Your task to perform on an android device: Open the phone app and click the voicemail tab. Image 0: 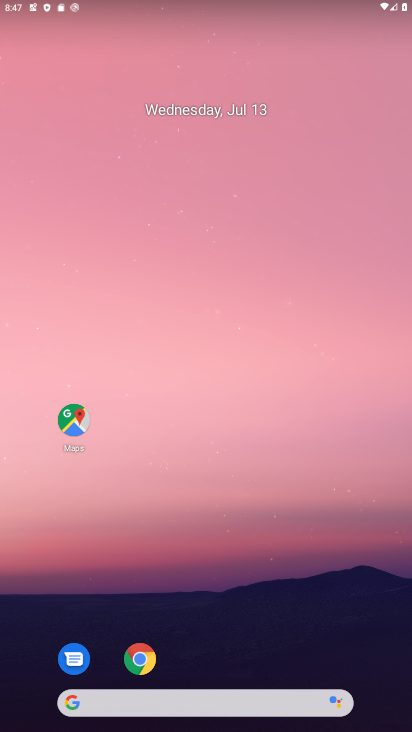
Step 0: drag from (208, 652) to (216, 121)
Your task to perform on an android device: Open the phone app and click the voicemail tab. Image 1: 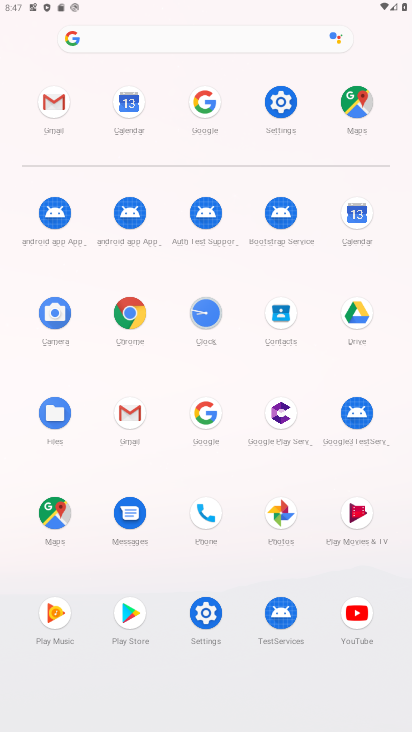
Step 1: click (207, 530)
Your task to perform on an android device: Open the phone app and click the voicemail tab. Image 2: 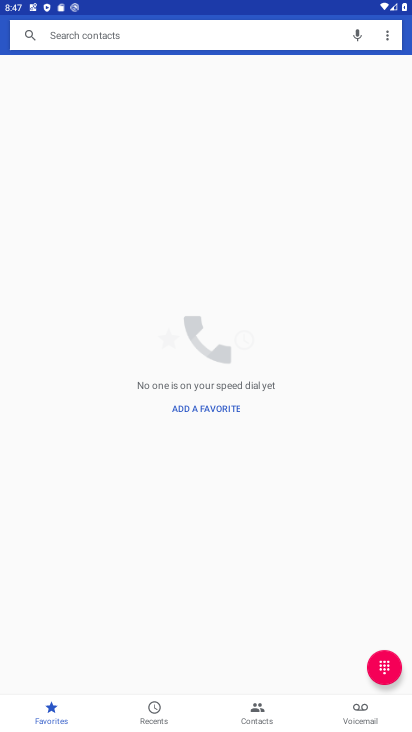
Step 2: click (358, 708)
Your task to perform on an android device: Open the phone app and click the voicemail tab. Image 3: 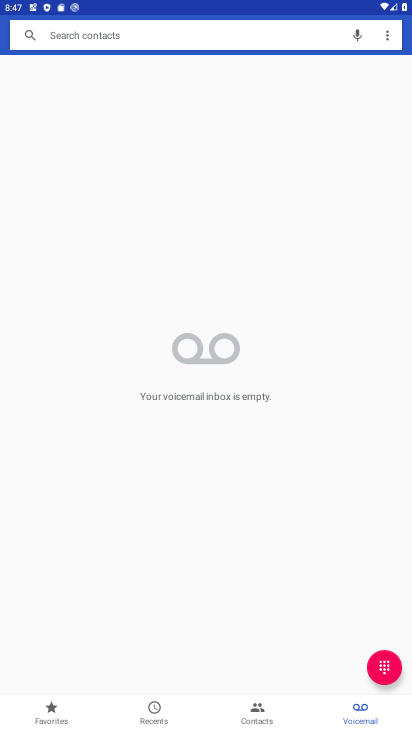
Step 3: click (361, 716)
Your task to perform on an android device: Open the phone app and click the voicemail tab. Image 4: 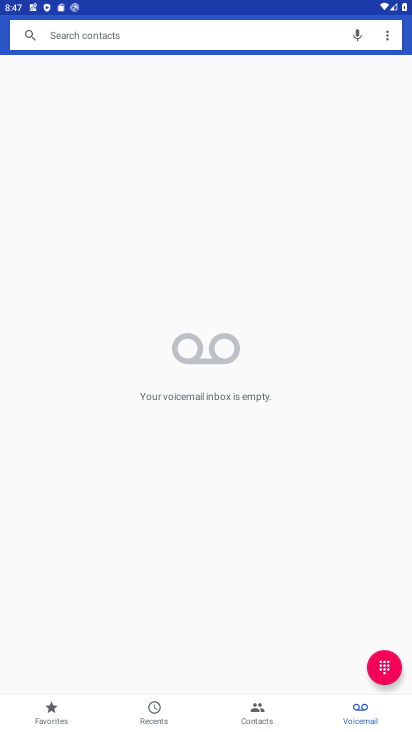
Step 4: task complete